Your task to perform on an android device: star an email in the gmail app Image 0: 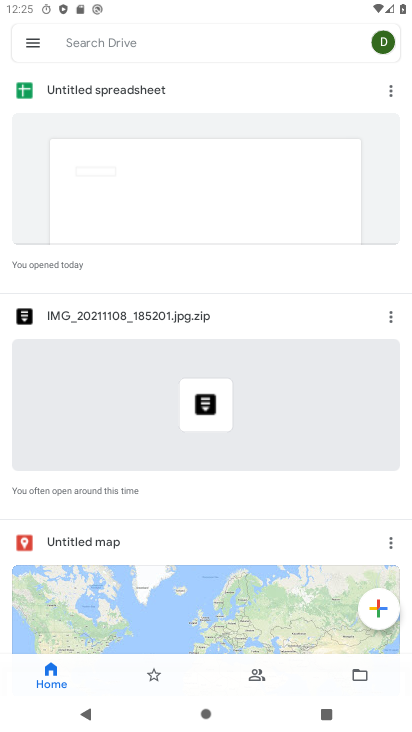
Step 0: press home button
Your task to perform on an android device: star an email in the gmail app Image 1: 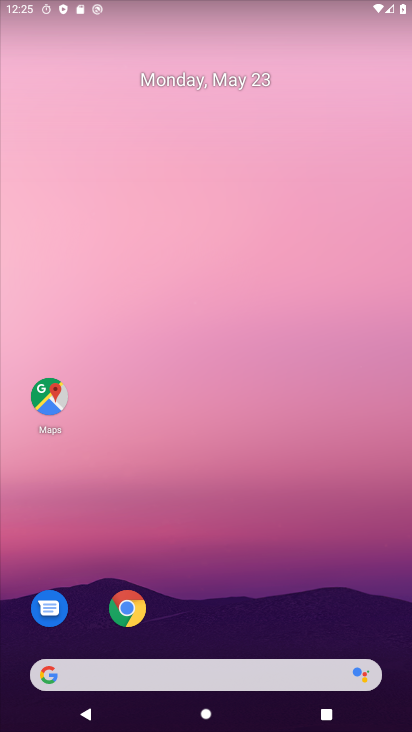
Step 1: drag from (361, 576) to (339, 227)
Your task to perform on an android device: star an email in the gmail app Image 2: 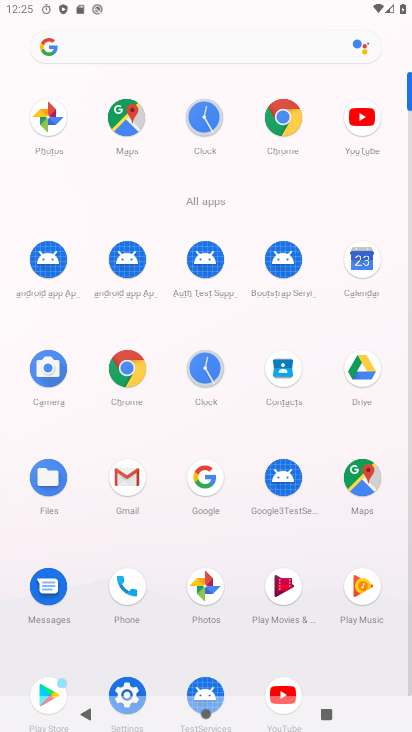
Step 2: click (129, 494)
Your task to perform on an android device: star an email in the gmail app Image 3: 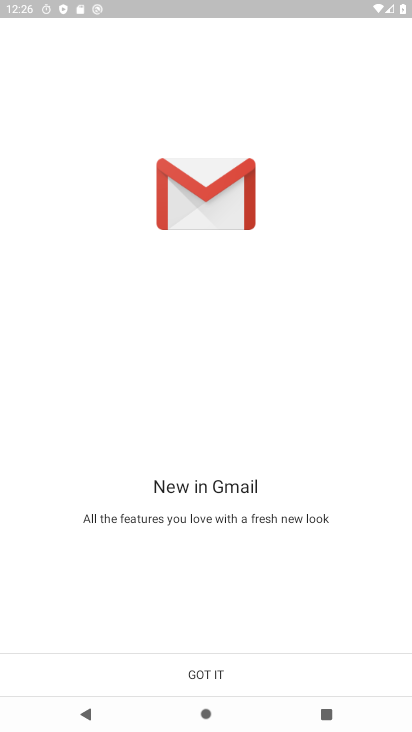
Step 3: click (207, 671)
Your task to perform on an android device: star an email in the gmail app Image 4: 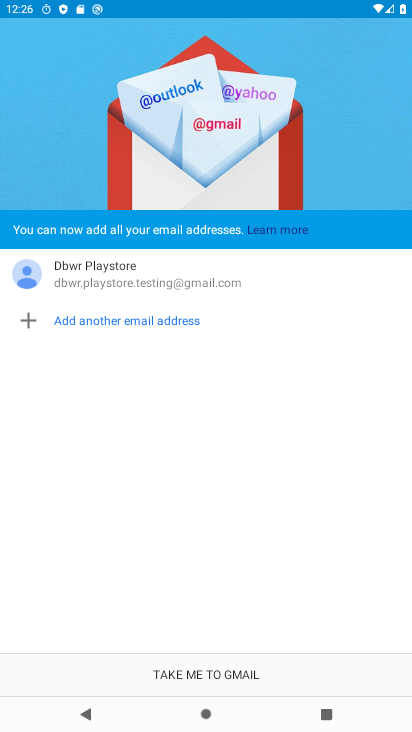
Step 4: click (207, 671)
Your task to perform on an android device: star an email in the gmail app Image 5: 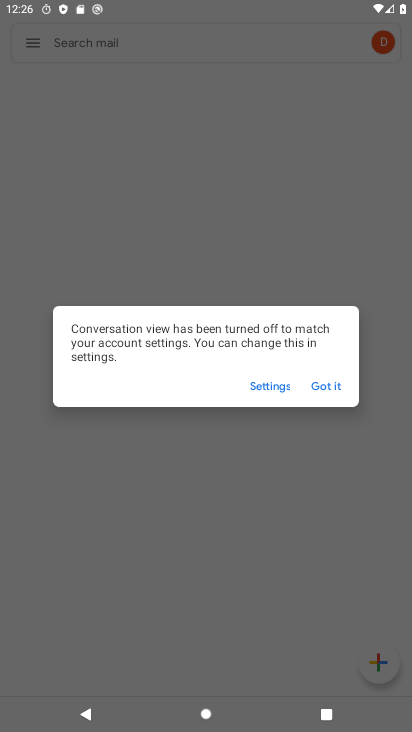
Step 5: click (335, 386)
Your task to perform on an android device: star an email in the gmail app Image 6: 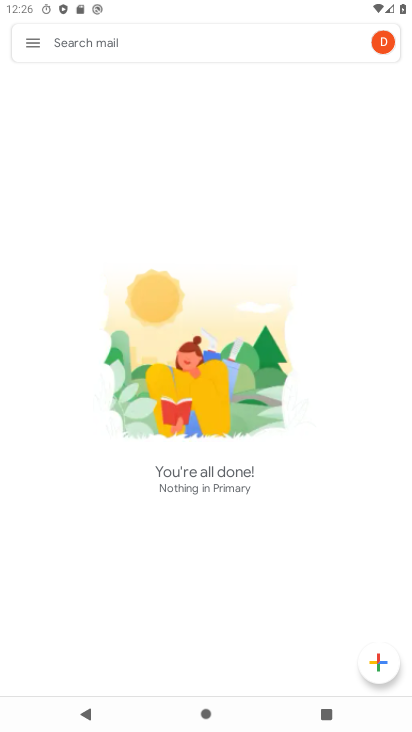
Step 6: click (33, 48)
Your task to perform on an android device: star an email in the gmail app Image 7: 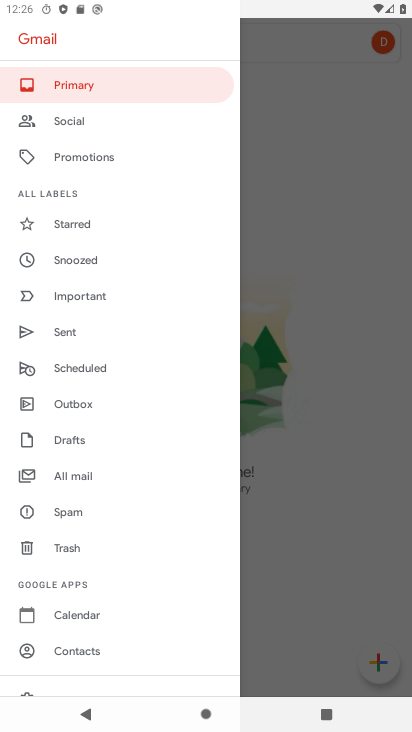
Step 7: drag from (116, 621) to (142, 355)
Your task to perform on an android device: star an email in the gmail app Image 8: 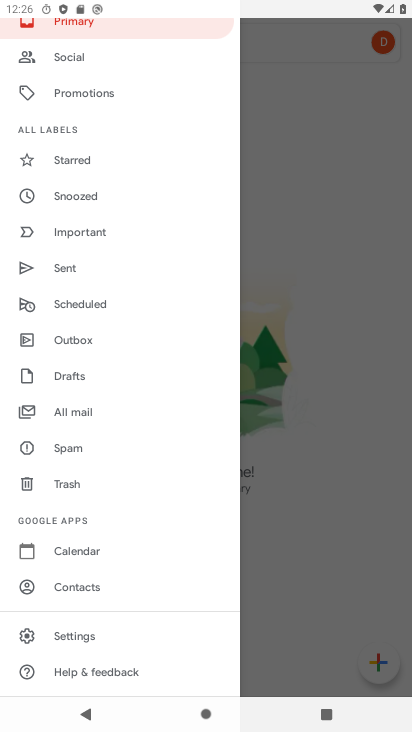
Step 8: click (90, 412)
Your task to perform on an android device: star an email in the gmail app Image 9: 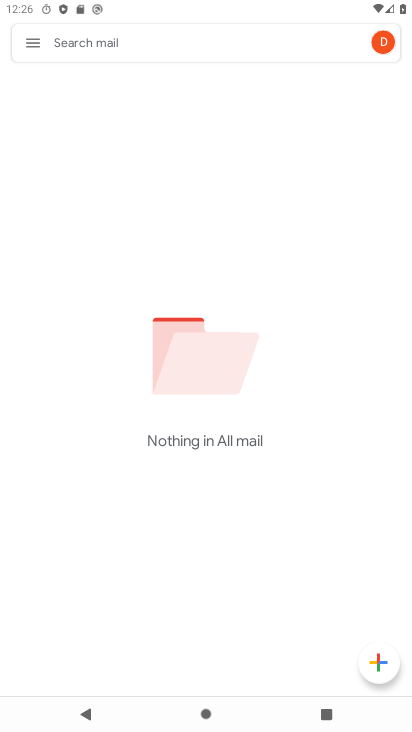
Step 9: task complete